Your task to perform on an android device: Open the Play Movies app and select the watchlist tab. Image 0: 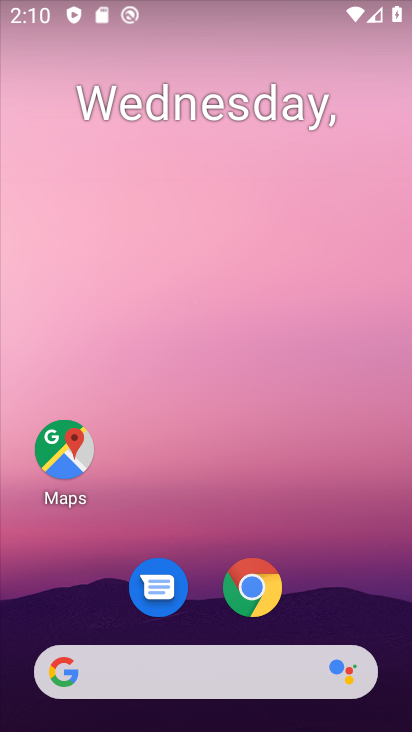
Step 0: click (266, 57)
Your task to perform on an android device: Open the Play Movies app and select the watchlist tab. Image 1: 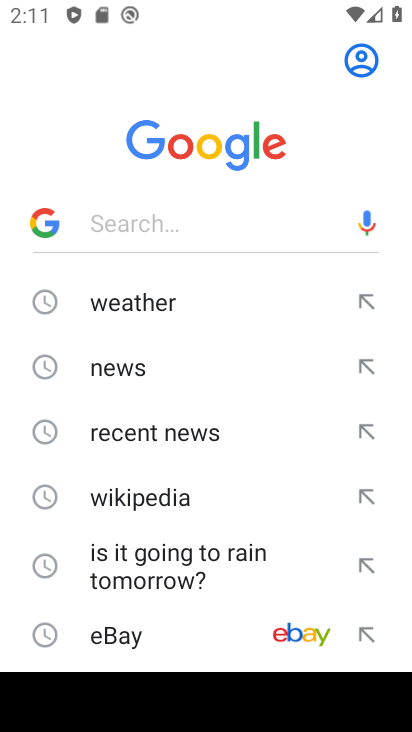
Step 1: press home button
Your task to perform on an android device: Open the Play Movies app and select the watchlist tab. Image 2: 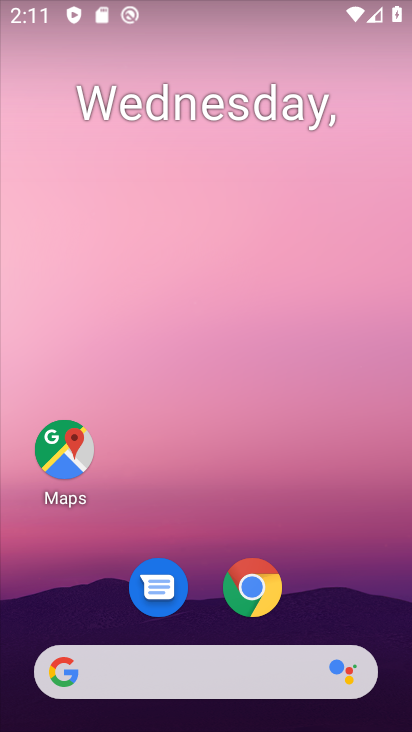
Step 2: drag from (349, 570) to (243, 176)
Your task to perform on an android device: Open the Play Movies app and select the watchlist tab. Image 3: 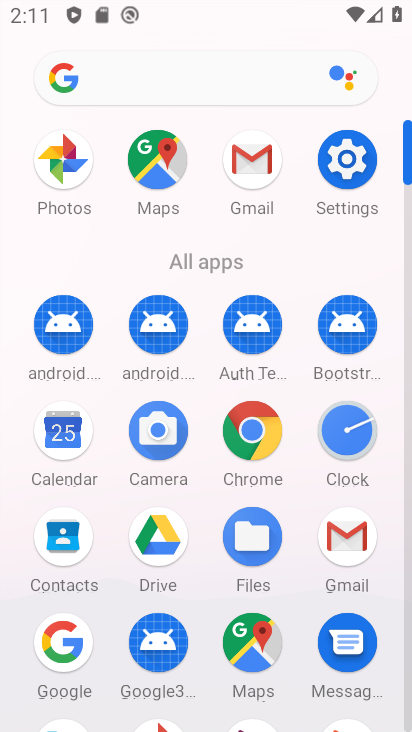
Step 3: click (408, 628)
Your task to perform on an android device: Open the Play Movies app and select the watchlist tab. Image 4: 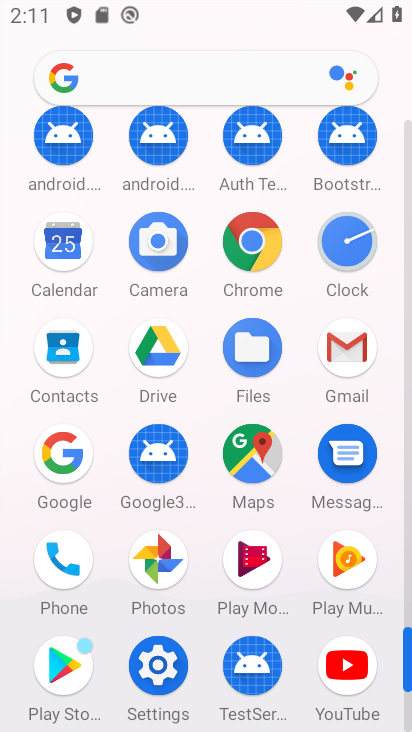
Step 4: click (249, 555)
Your task to perform on an android device: Open the Play Movies app and select the watchlist tab. Image 5: 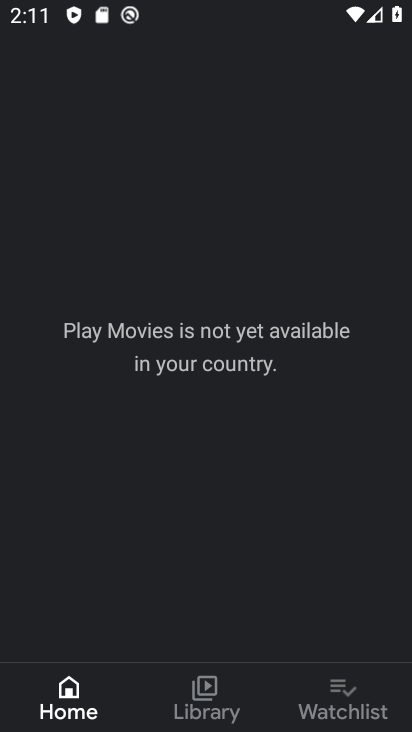
Step 5: click (337, 684)
Your task to perform on an android device: Open the Play Movies app and select the watchlist tab. Image 6: 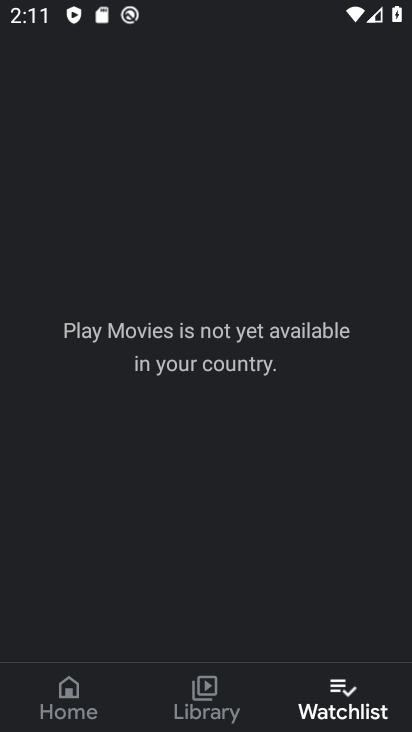
Step 6: task complete